Your task to perform on an android device: open the mobile data screen to see how much data has been used Image 0: 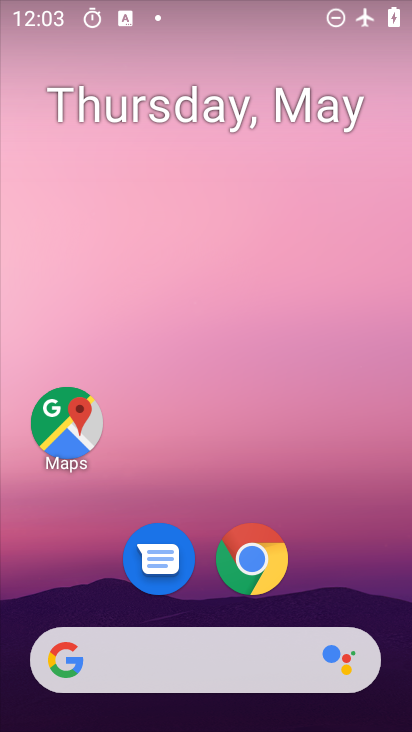
Step 0: drag from (245, 658) to (263, 23)
Your task to perform on an android device: open the mobile data screen to see how much data has been used Image 1: 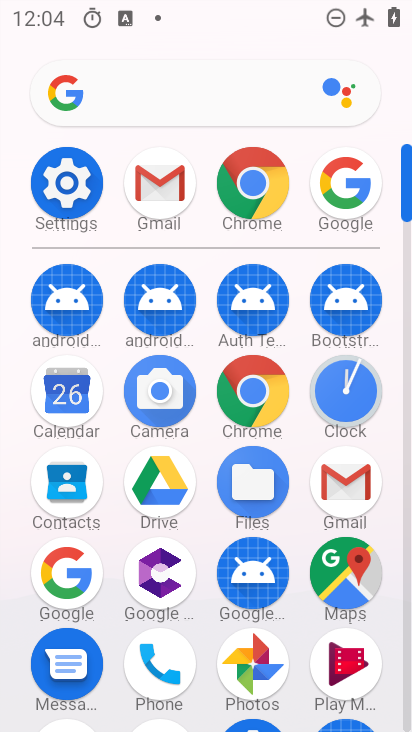
Step 1: drag from (213, 529) to (296, 176)
Your task to perform on an android device: open the mobile data screen to see how much data has been used Image 2: 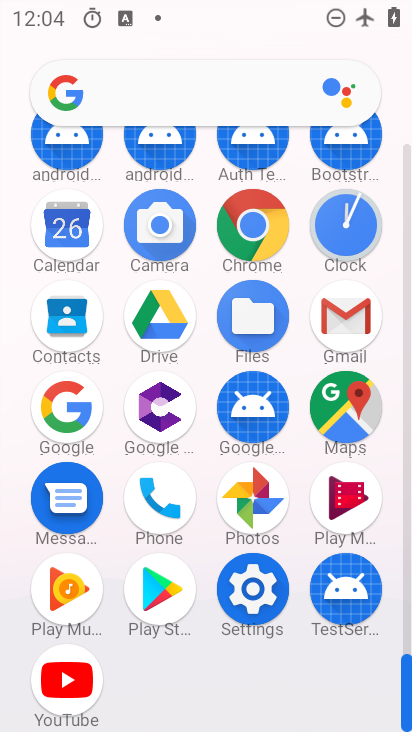
Step 2: click (257, 613)
Your task to perform on an android device: open the mobile data screen to see how much data has been used Image 3: 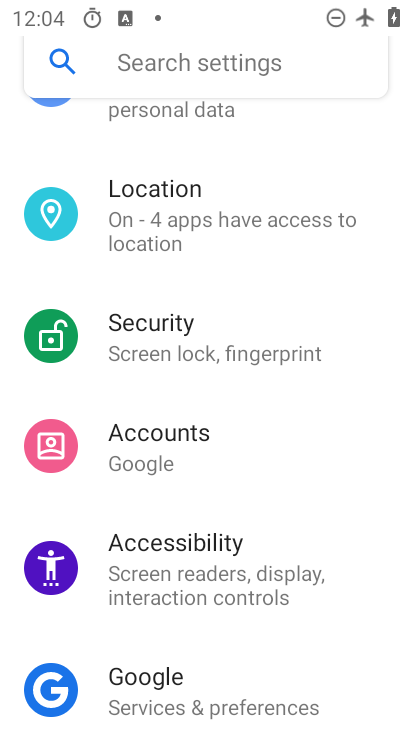
Step 3: drag from (229, 371) to (207, 652)
Your task to perform on an android device: open the mobile data screen to see how much data has been used Image 4: 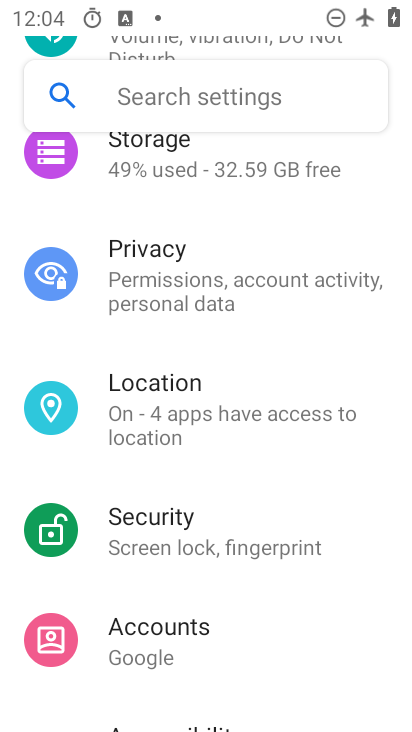
Step 4: drag from (179, 469) to (152, 664)
Your task to perform on an android device: open the mobile data screen to see how much data has been used Image 5: 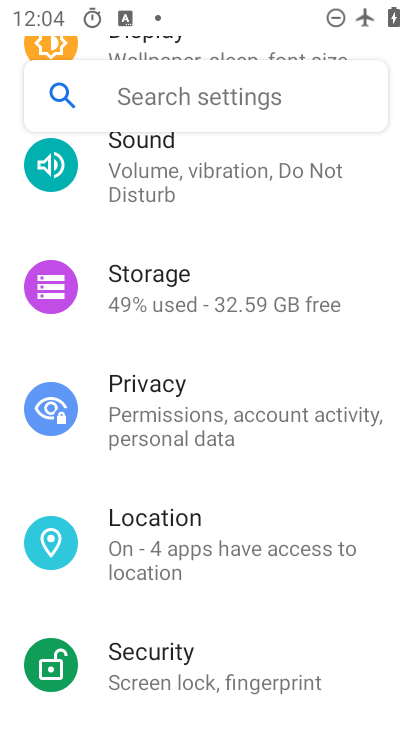
Step 5: drag from (182, 356) to (191, 651)
Your task to perform on an android device: open the mobile data screen to see how much data has been used Image 6: 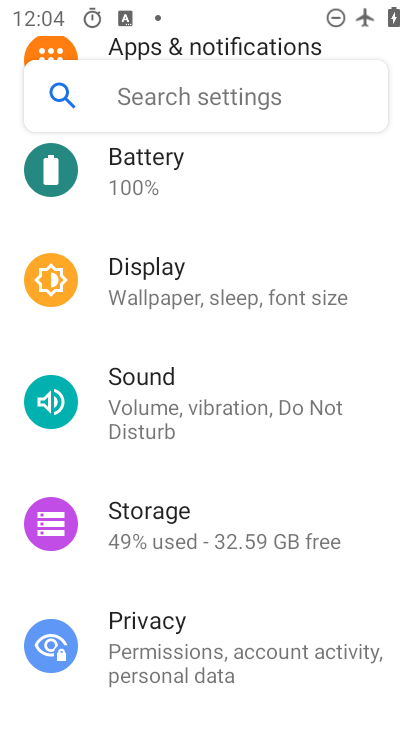
Step 6: drag from (213, 314) to (204, 586)
Your task to perform on an android device: open the mobile data screen to see how much data has been used Image 7: 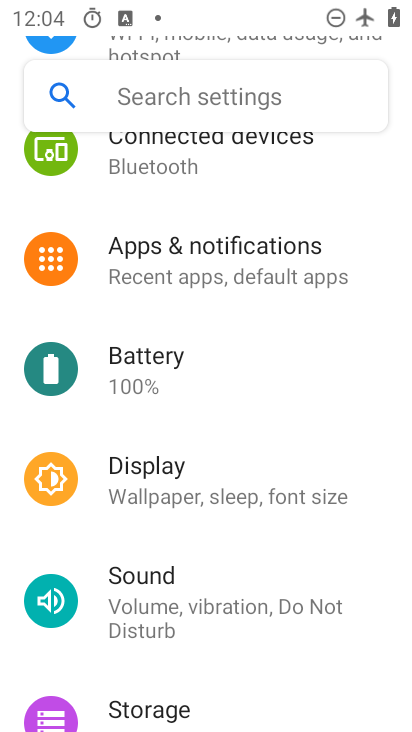
Step 7: drag from (255, 159) to (224, 516)
Your task to perform on an android device: open the mobile data screen to see how much data has been used Image 8: 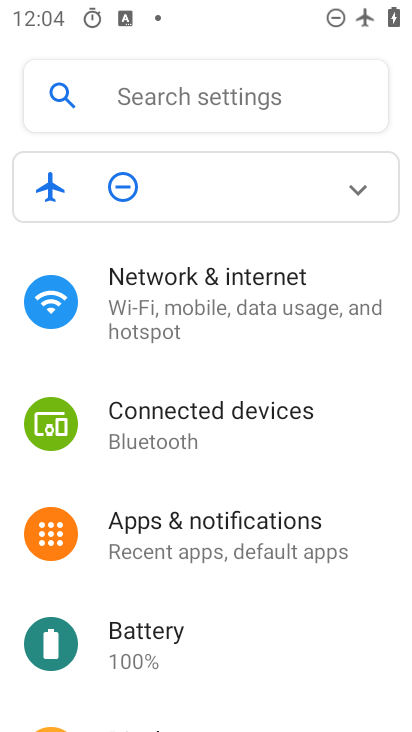
Step 8: click (244, 287)
Your task to perform on an android device: open the mobile data screen to see how much data has been used Image 9: 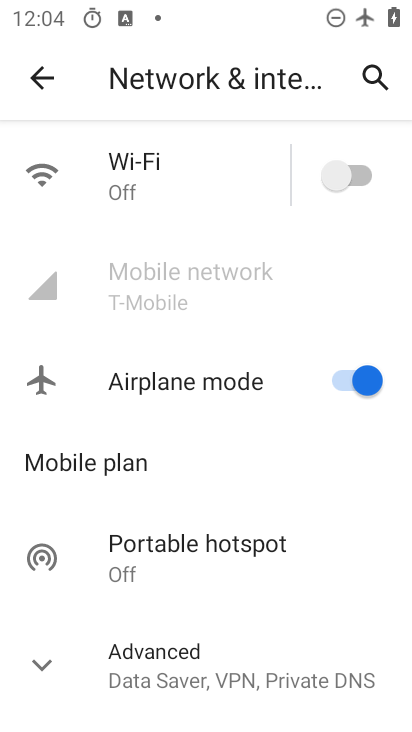
Step 9: task complete